Your task to perform on an android device: turn on the 12-hour format for clock Image 0: 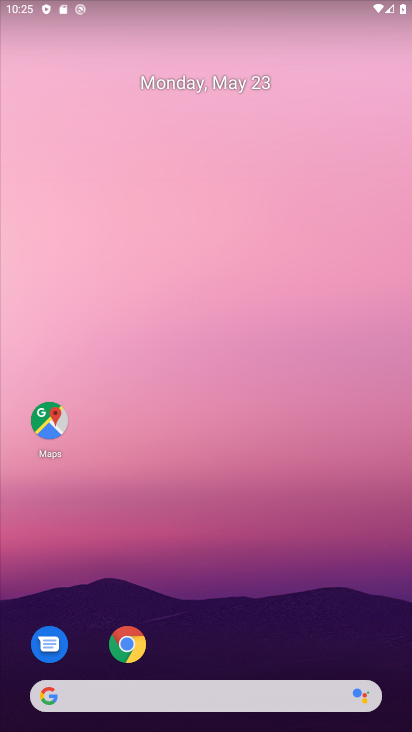
Step 0: drag from (192, 548) to (174, 181)
Your task to perform on an android device: turn on the 12-hour format for clock Image 1: 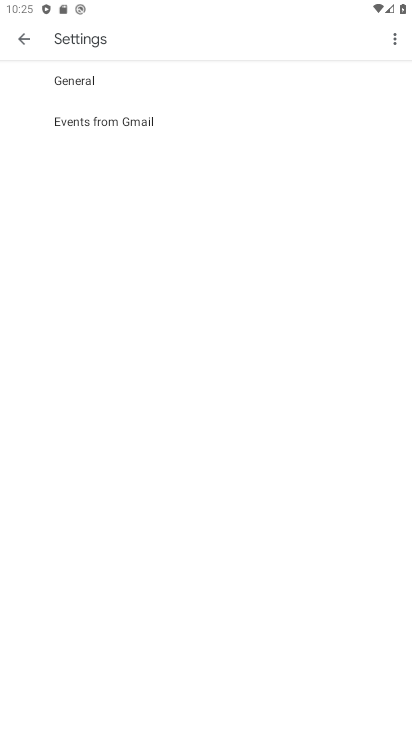
Step 1: click (16, 34)
Your task to perform on an android device: turn on the 12-hour format for clock Image 2: 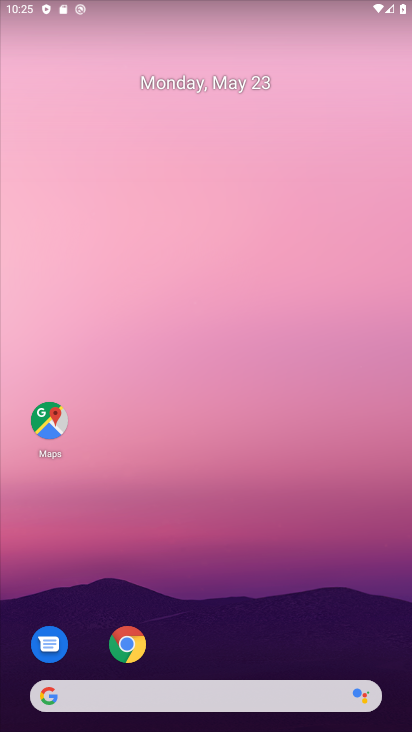
Step 2: drag from (287, 681) to (235, 383)
Your task to perform on an android device: turn on the 12-hour format for clock Image 3: 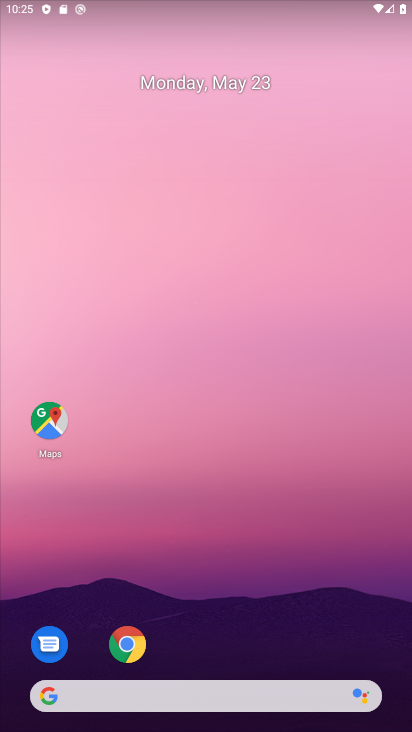
Step 3: drag from (265, 679) to (222, 95)
Your task to perform on an android device: turn on the 12-hour format for clock Image 4: 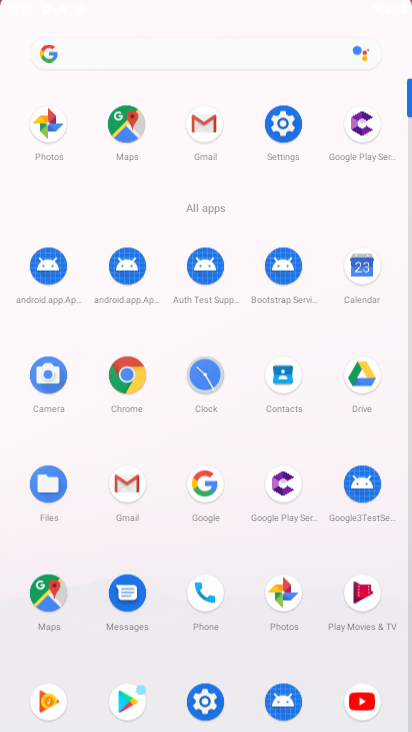
Step 4: drag from (243, 531) to (163, 80)
Your task to perform on an android device: turn on the 12-hour format for clock Image 5: 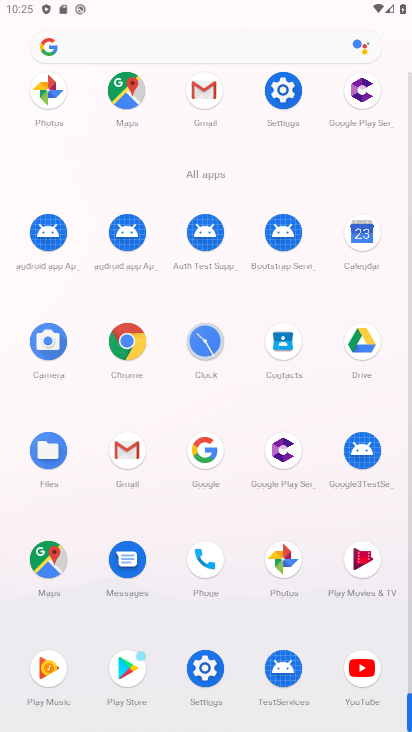
Step 5: click (210, 337)
Your task to perform on an android device: turn on the 12-hour format for clock Image 6: 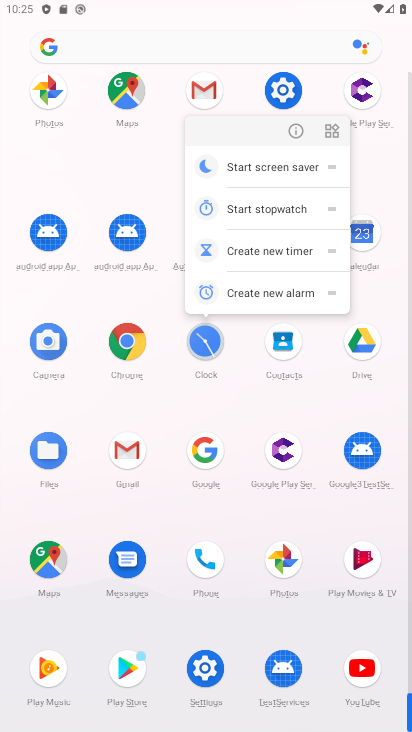
Step 6: click (214, 331)
Your task to perform on an android device: turn on the 12-hour format for clock Image 7: 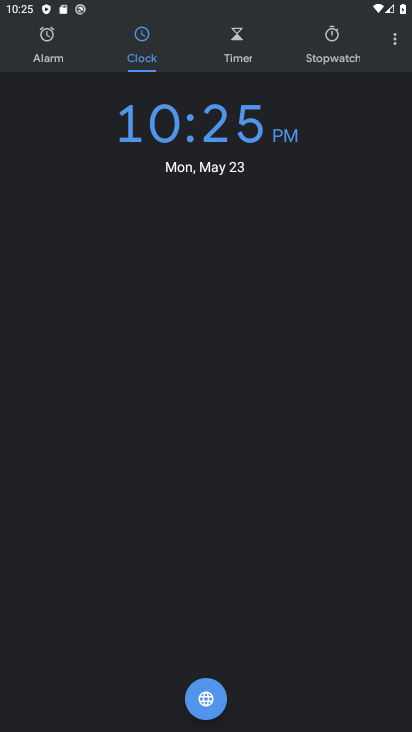
Step 7: click (391, 34)
Your task to perform on an android device: turn on the 12-hour format for clock Image 8: 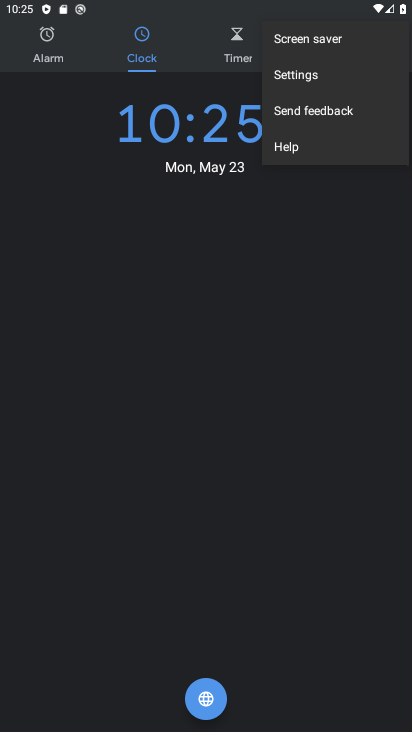
Step 8: click (317, 74)
Your task to perform on an android device: turn on the 12-hour format for clock Image 9: 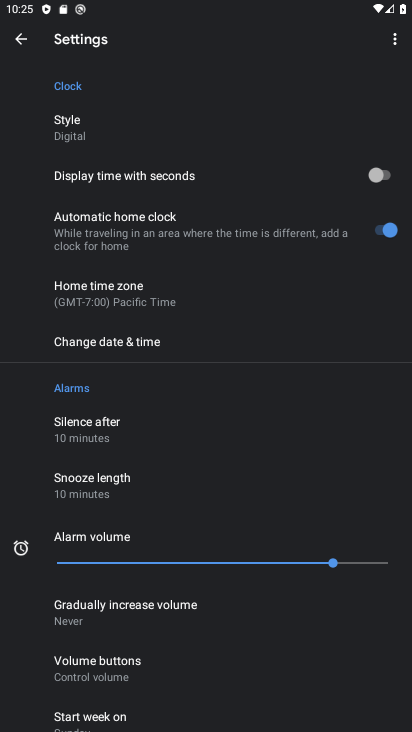
Step 9: drag from (164, 579) to (164, 115)
Your task to perform on an android device: turn on the 12-hour format for clock Image 10: 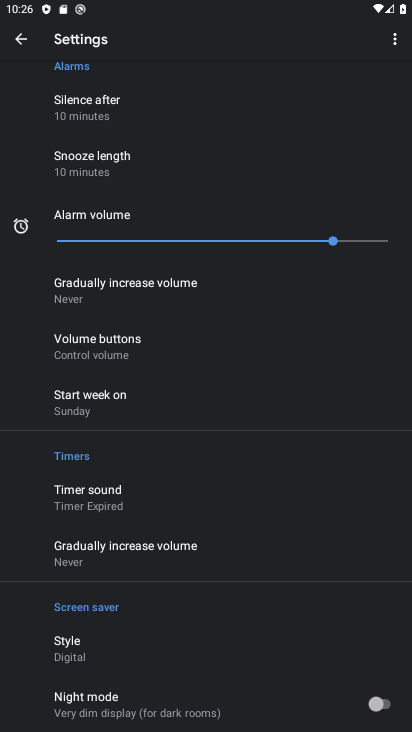
Step 10: drag from (137, 190) to (157, 556)
Your task to perform on an android device: turn on the 12-hour format for clock Image 11: 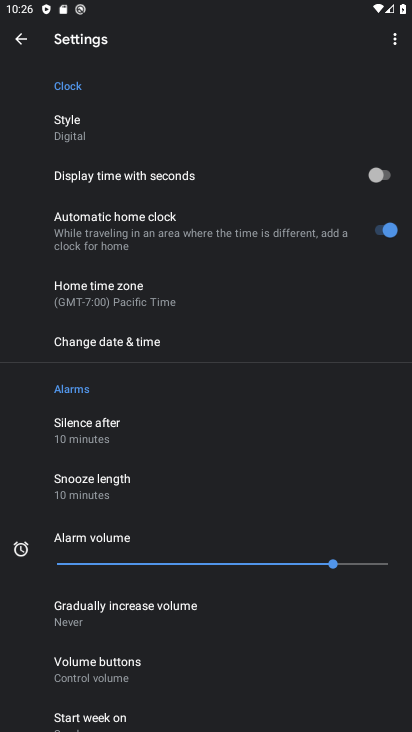
Step 11: click (141, 340)
Your task to perform on an android device: turn on the 12-hour format for clock Image 12: 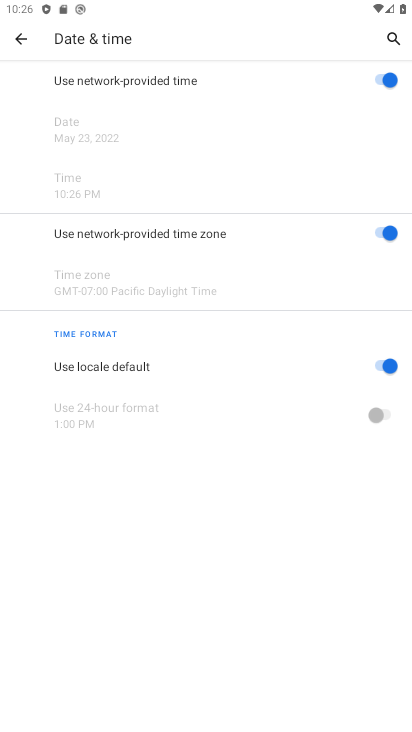
Step 12: task complete